Your task to perform on an android device: Empty the shopping cart on newegg.com. Add logitech g903 to the cart on newegg.com Image 0: 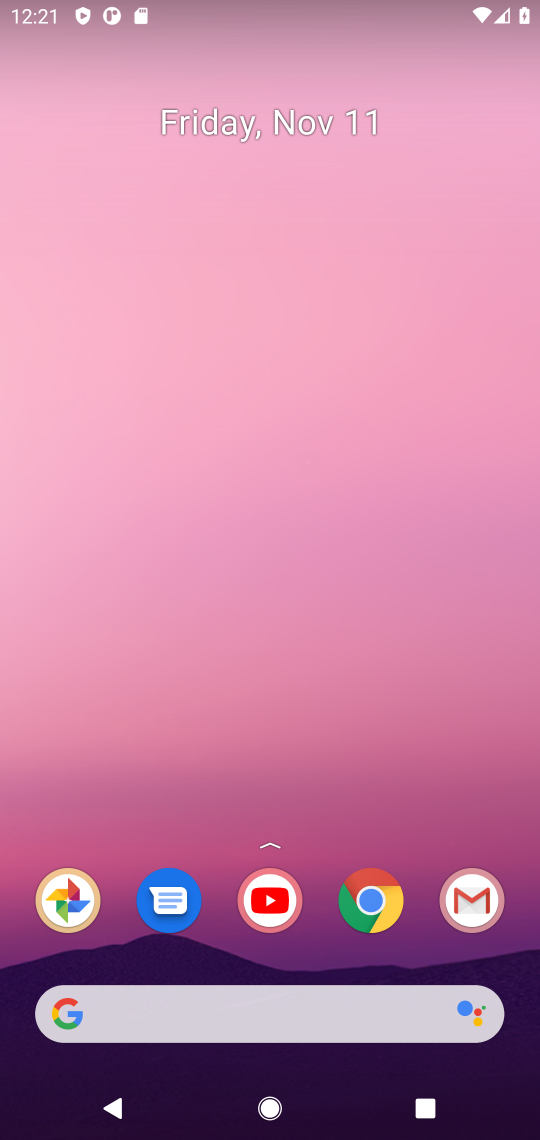
Step 0: click (393, 897)
Your task to perform on an android device: Empty the shopping cart on newegg.com. Add logitech g903 to the cart on newegg.com Image 1: 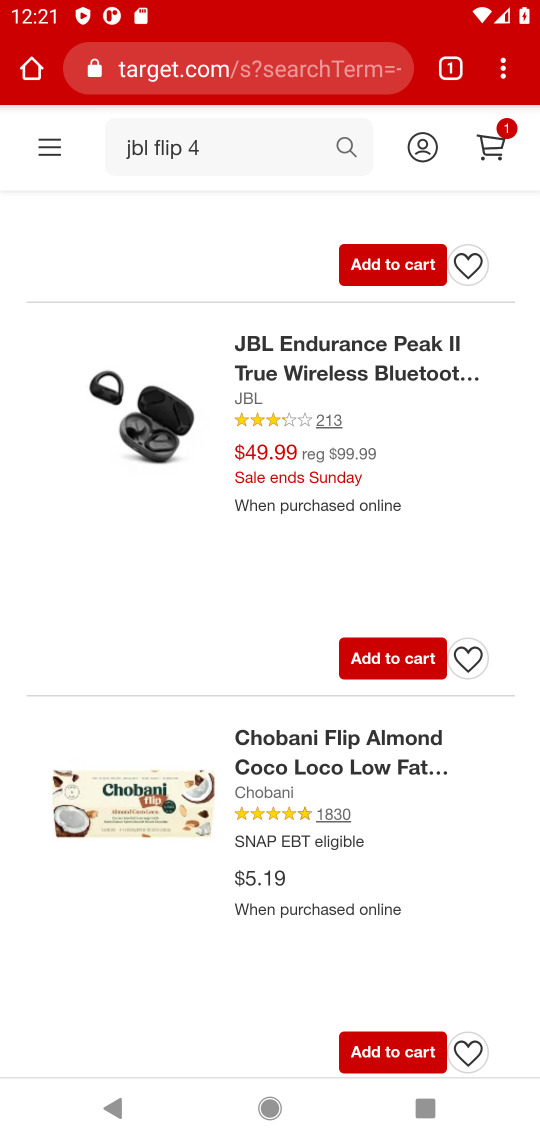
Step 1: click (286, 66)
Your task to perform on an android device: Empty the shopping cart on newegg.com. Add logitech g903 to the cart on newegg.com Image 2: 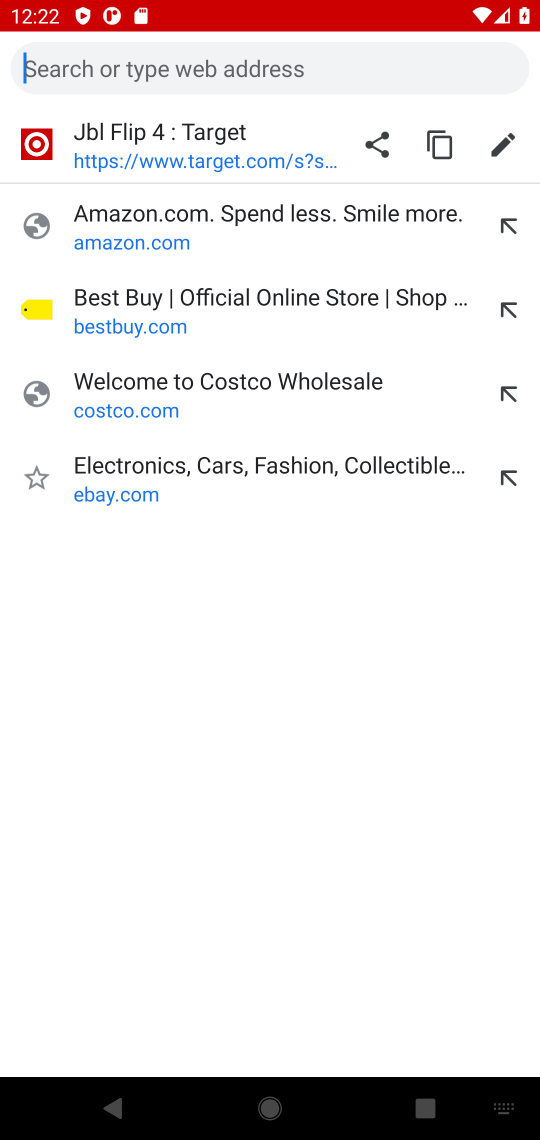
Step 2: type "newegg.com"
Your task to perform on an android device: Empty the shopping cart on newegg.com. Add logitech g903 to the cart on newegg.com Image 3: 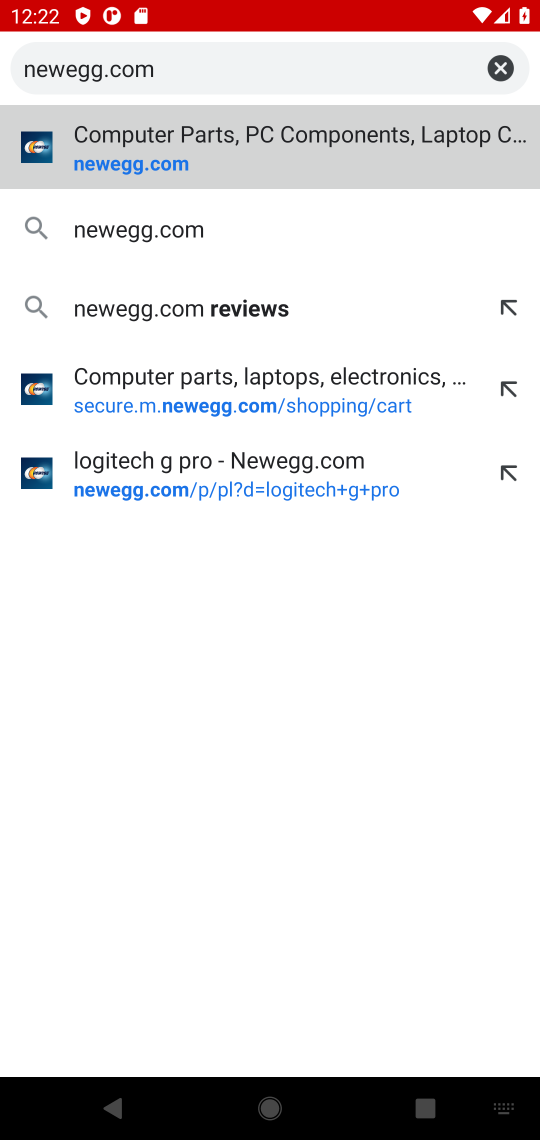
Step 3: press enter
Your task to perform on an android device: Empty the shopping cart on newegg.com. Add logitech g903 to the cart on newegg.com Image 4: 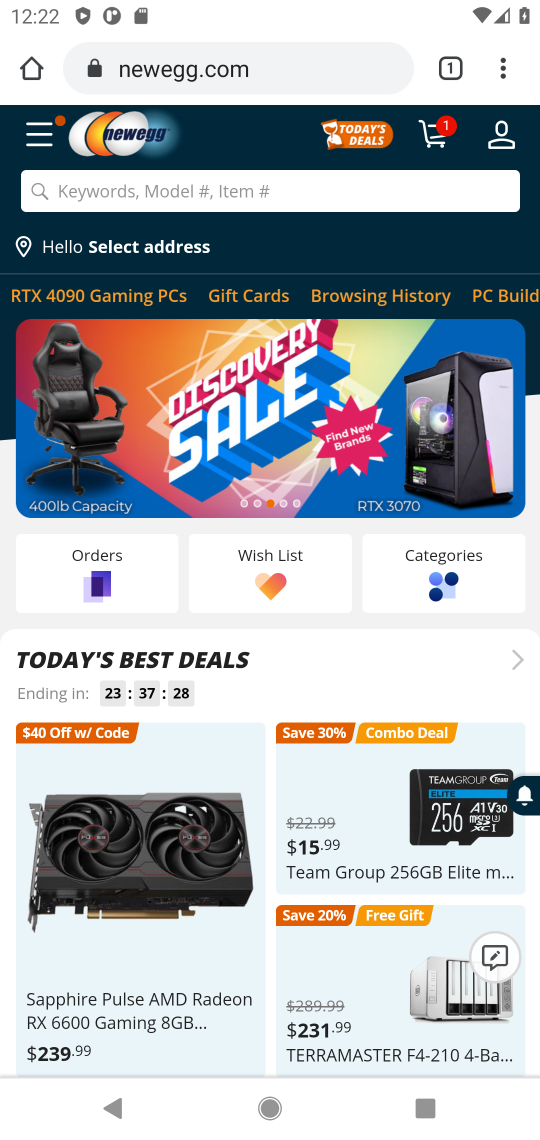
Step 4: click (227, 180)
Your task to perform on an android device: Empty the shopping cart on newegg.com. Add logitech g903 to the cart on newegg.com Image 5: 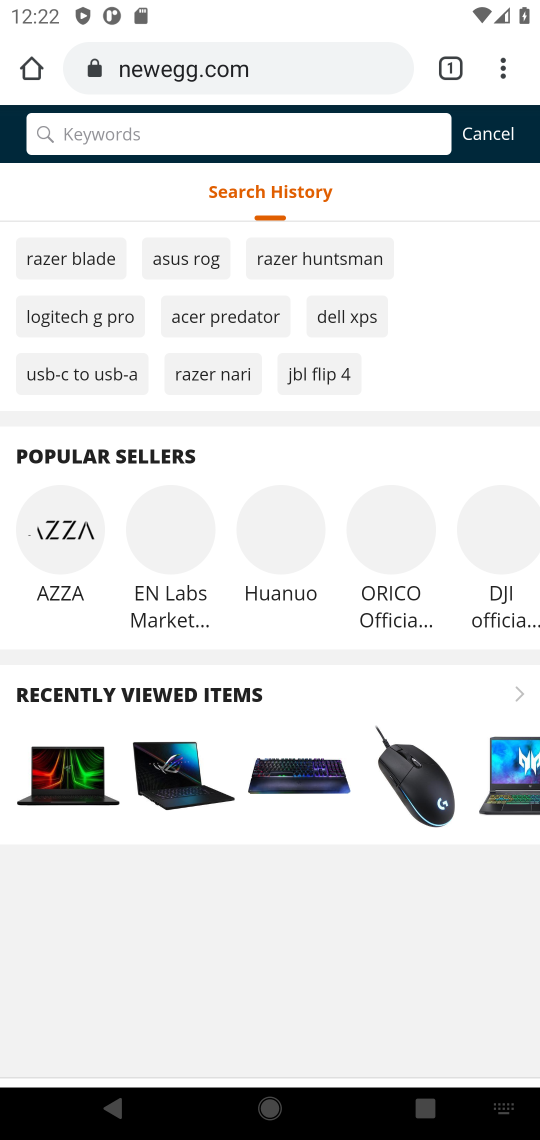
Step 5: click (267, 185)
Your task to perform on an android device: Empty the shopping cart on newegg.com. Add logitech g903 to the cart on newegg.com Image 6: 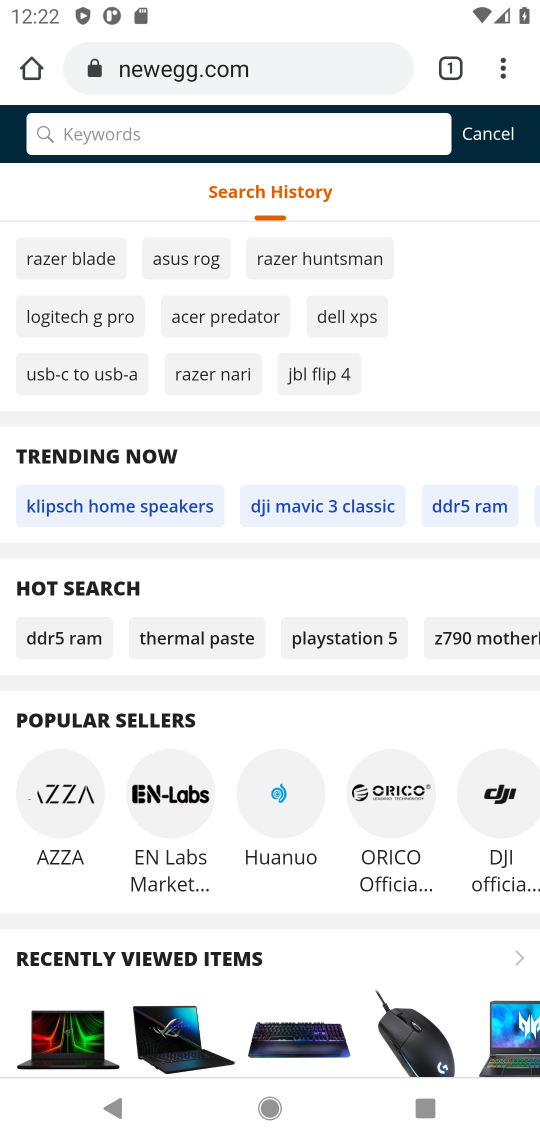
Step 6: click (279, 140)
Your task to perform on an android device: Empty the shopping cart on newegg.com. Add logitech g903 to the cart on newegg.com Image 7: 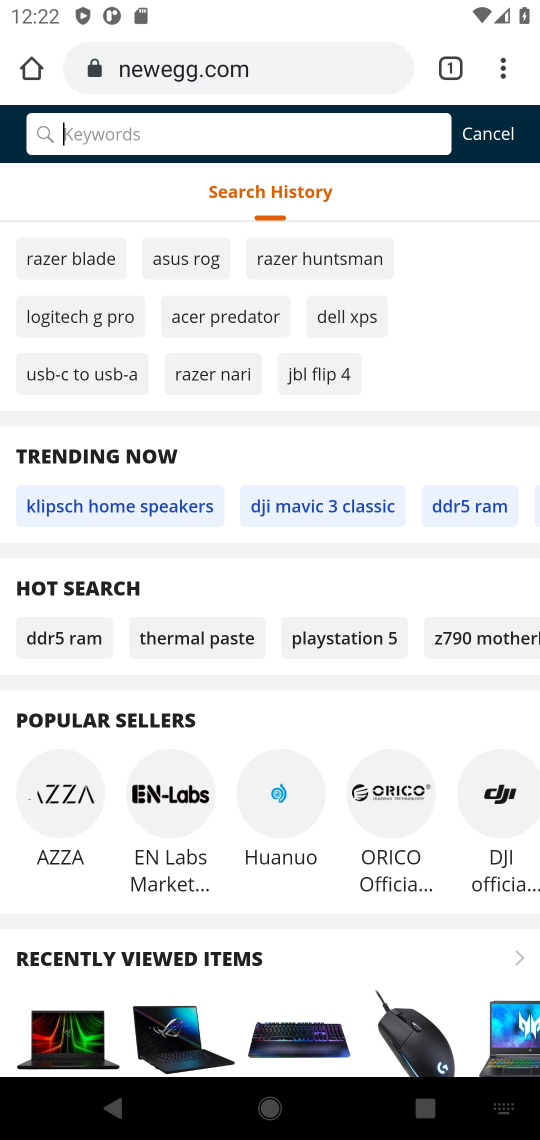
Step 7: type "logitech g903"
Your task to perform on an android device: Empty the shopping cart on newegg.com. Add logitech g903 to the cart on newegg.com Image 8: 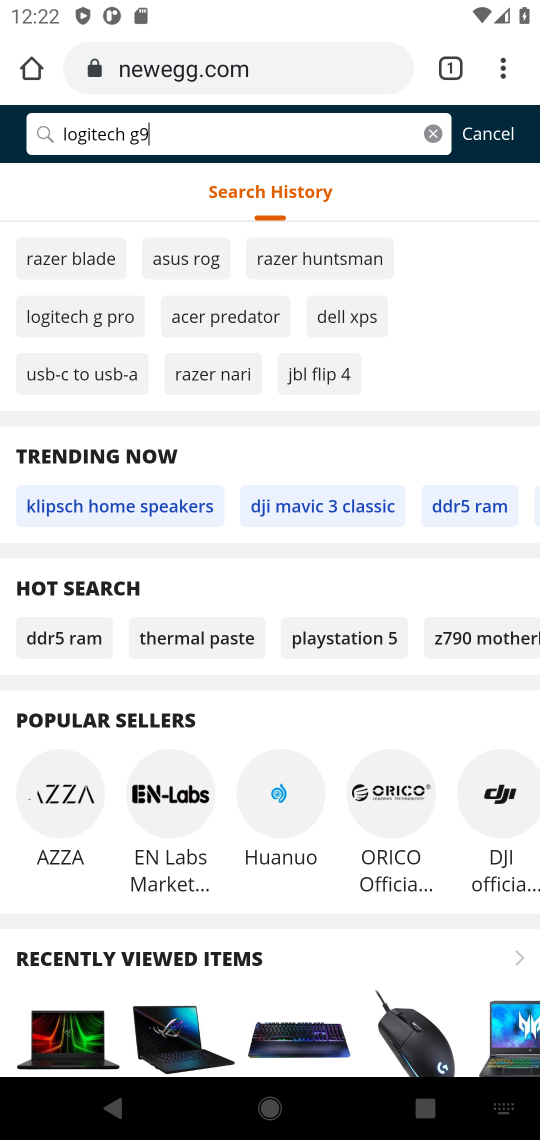
Step 8: press enter
Your task to perform on an android device: Empty the shopping cart on newegg.com. Add logitech g903 to the cart on newegg.com Image 9: 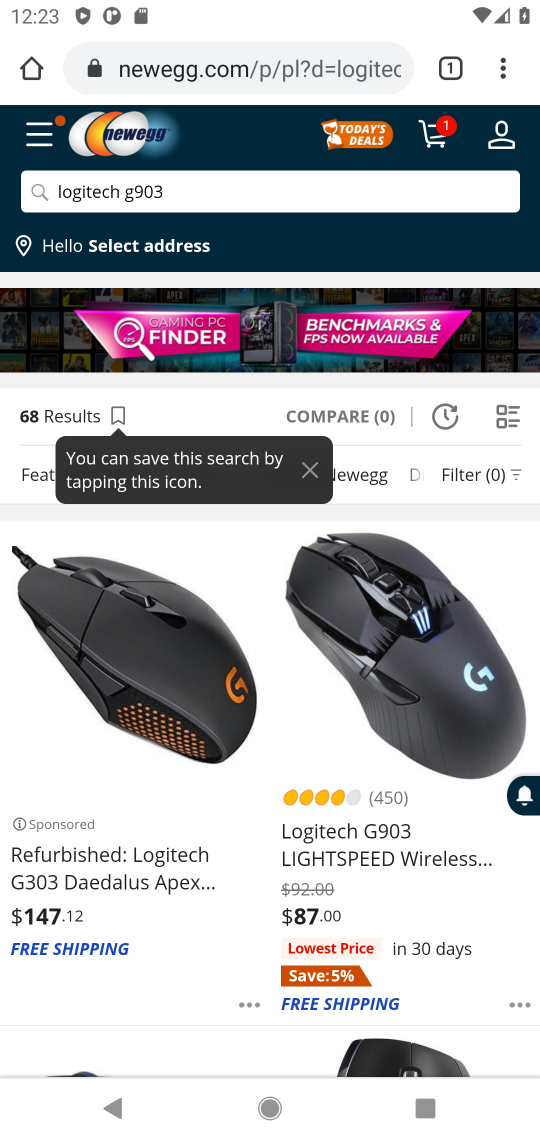
Step 9: click (143, 824)
Your task to perform on an android device: Empty the shopping cart on newegg.com. Add logitech g903 to the cart on newegg.com Image 10: 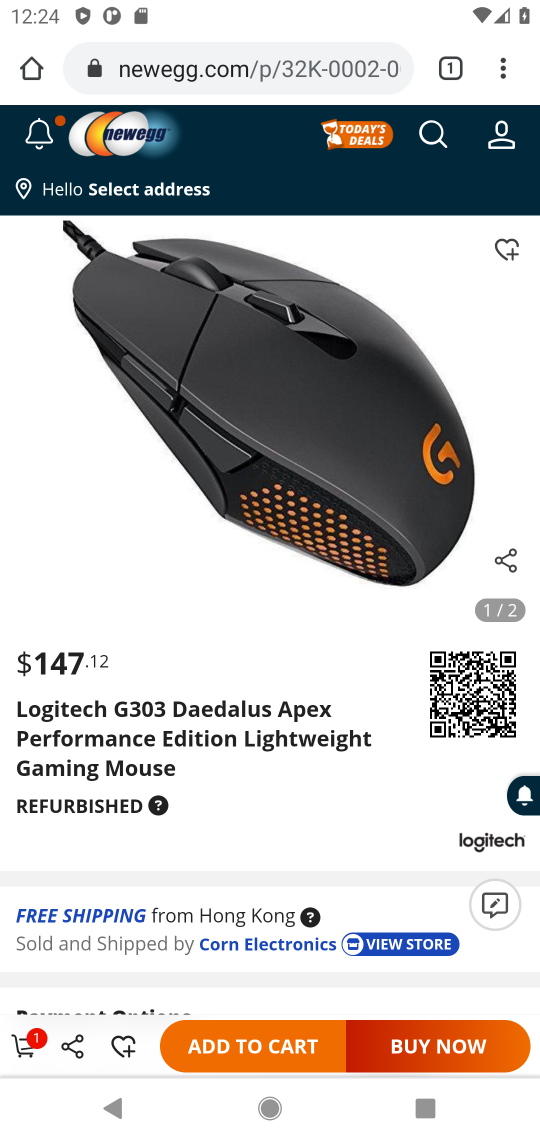
Step 10: press back button
Your task to perform on an android device: Empty the shopping cart on newegg.com. Add logitech g903 to the cart on newegg.com Image 11: 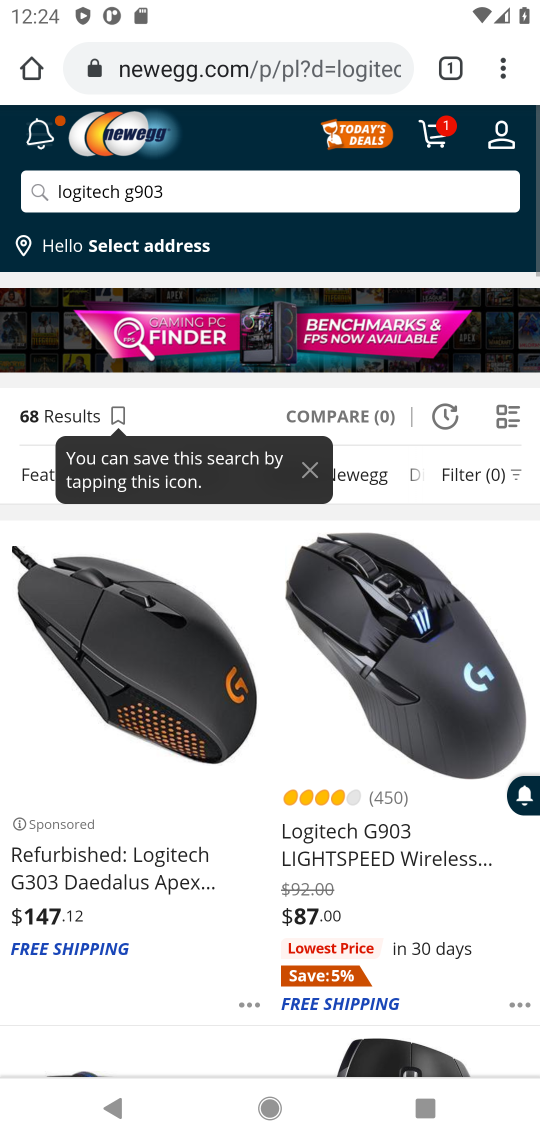
Step 11: click (393, 848)
Your task to perform on an android device: Empty the shopping cart on newegg.com. Add logitech g903 to the cart on newegg.com Image 12: 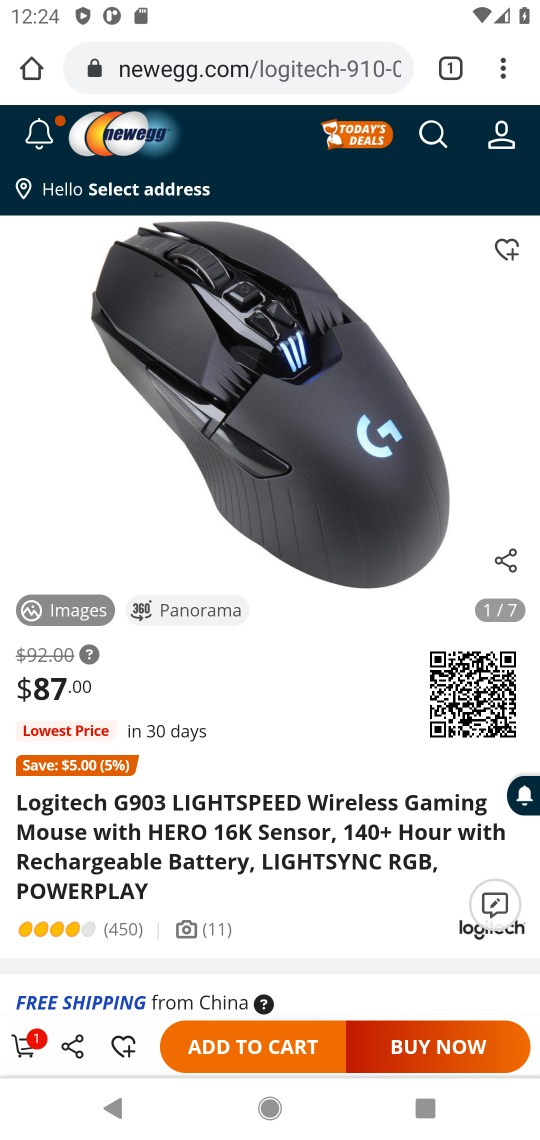
Step 12: click (262, 1044)
Your task to perform on an android device: Empty the shopping cart on newegg.com. Add logitech g903 to the cart on newegg.com Image 13: 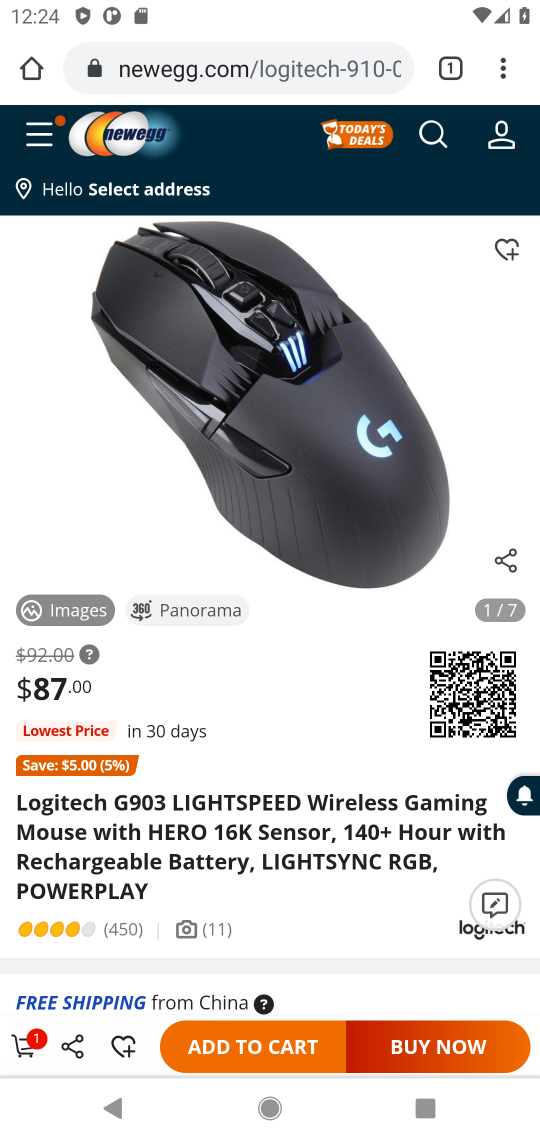
Step 13: click (270, 1050)
Your task to perform on an android device: Empty the shopping cart on newegg.com. Add logitech g903 to the cart on newegg.com Image 14: 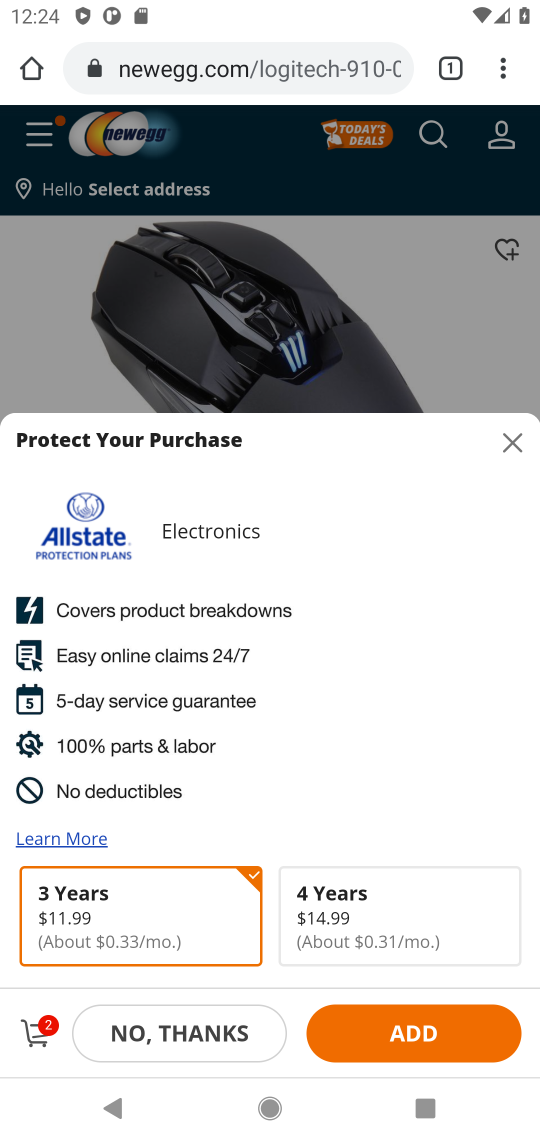
Step 14: click (43, 1031)
Your task to perform on an android device: Empty the shopping cart on newegg.com. Add logitech g903 to the cart on newegg.com Image 15: 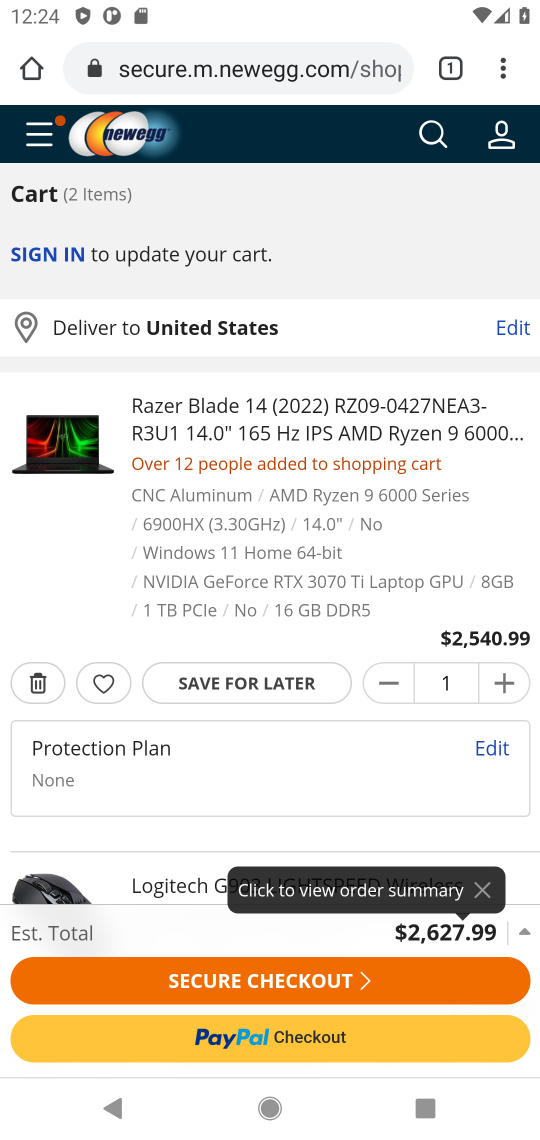
Step 15: click (30, 685)
Your task to perform on an android device: Empty the shopping cart on newegg.com. Add logitech g903 to the cart on newegg.com Image 16: 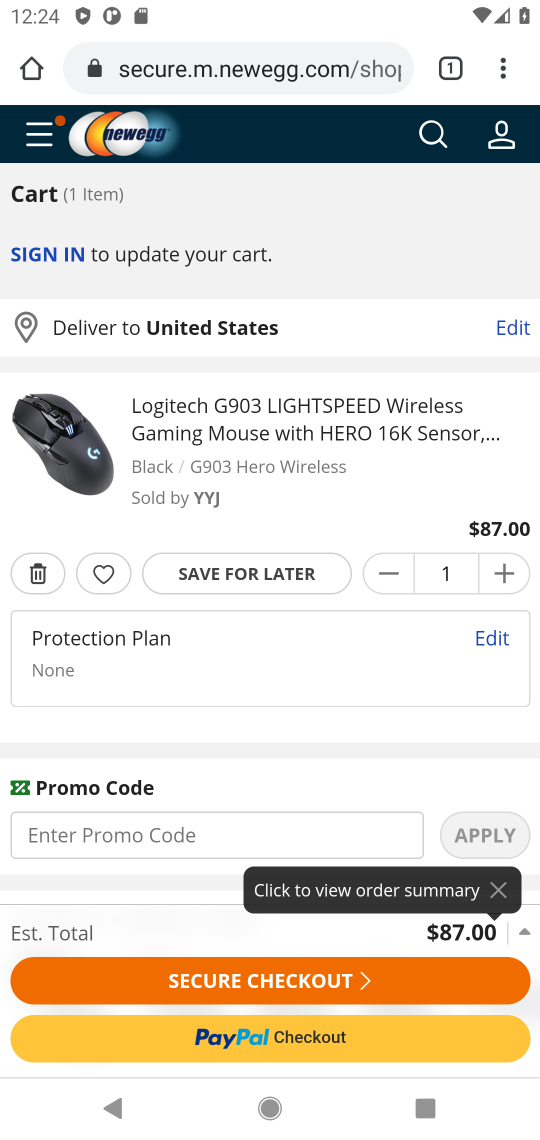
Step 16: task complete